Your task to perform on an android device: Open calendar and show me the second week of next month Image 0: 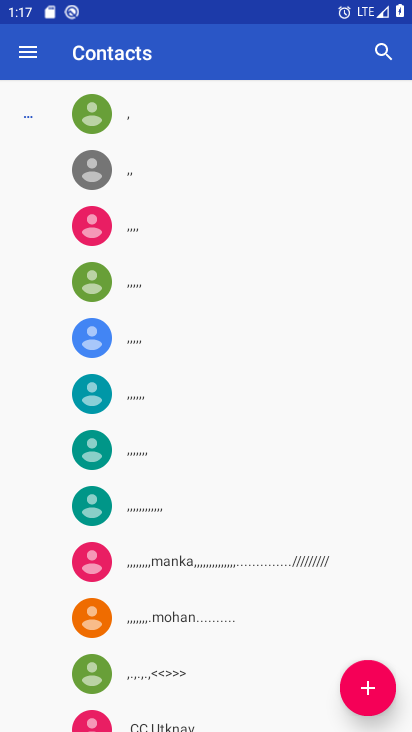
Step 0: press home button
Your task to perform on an android device: Open calendar and show me the second week of next month Image 1: 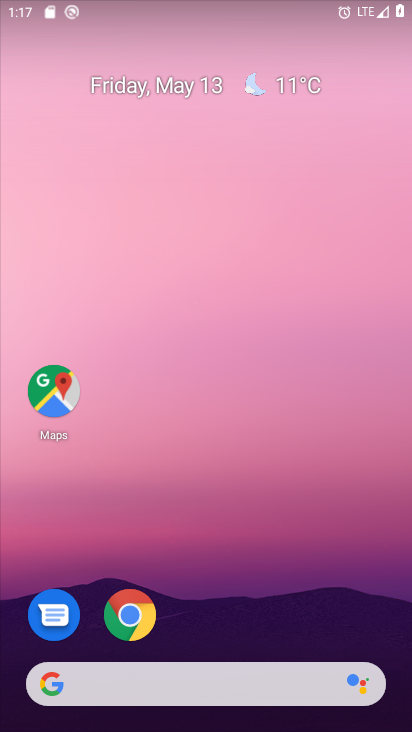
Step 1: drag from (219, 570) to (283, 60)
Your task to perform on an android device: Open calendar and show me the second week of next month Image 2: 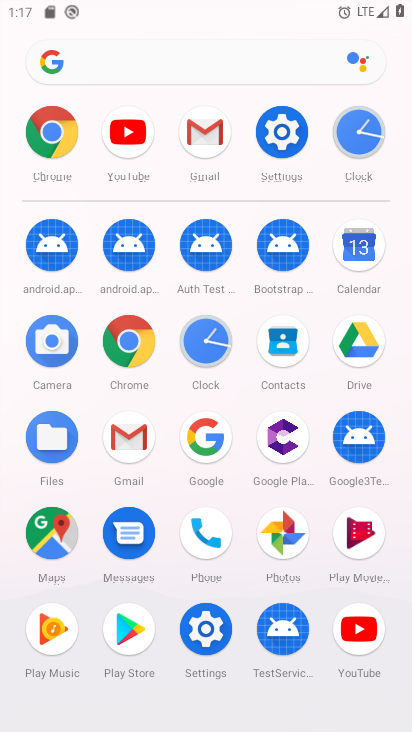
Step 2: click (356, 242)
Your task to perform on an android device: Open calendar and show me the second week of next month Image 3: 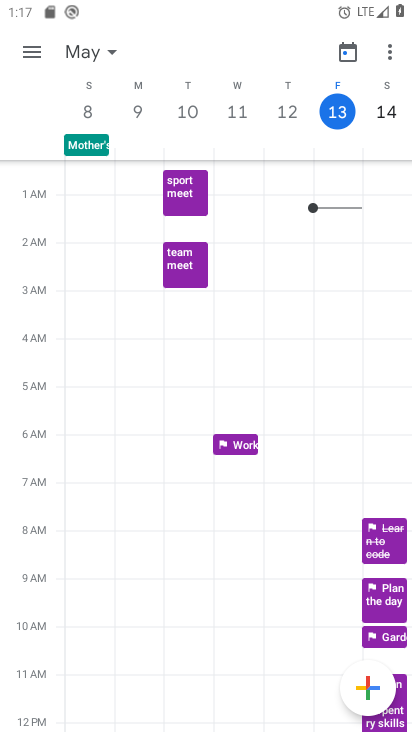
Step 3: click (30, 46)
Your task to perform on an android device: Open calendar and show me the second week of next month Image 4: 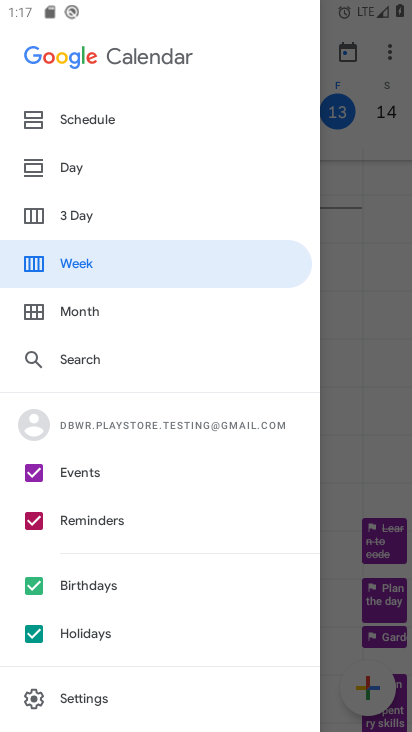
Step 4: click (84, 304)
Your task to perform on an android device: Open calendar and show me the second week of next month Image 5: 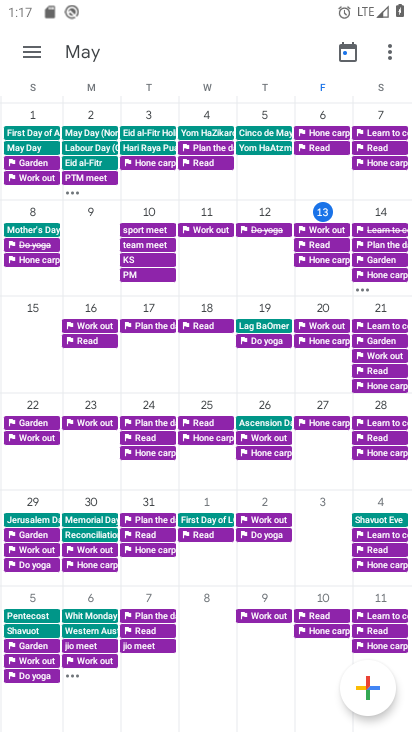
Step 5: drag from (367, 298) to (9, 342)
Your task to perform on an android device: Open calendar and show me the second week of next month Image 6: 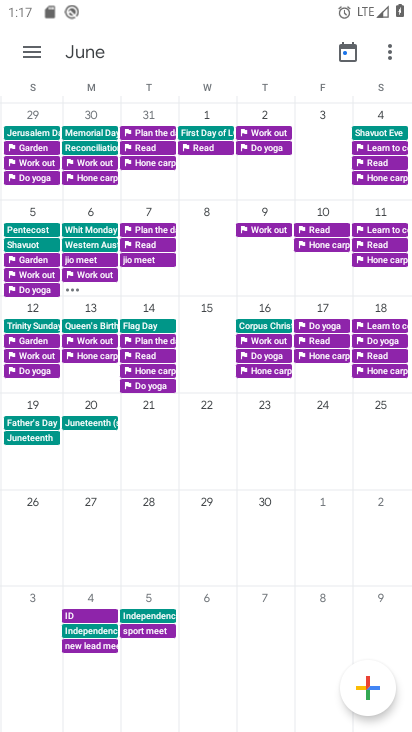
Step 6: click (43, 302)
Your task to perform on an android device: Open calendar and show me the second week of next month Image 7: 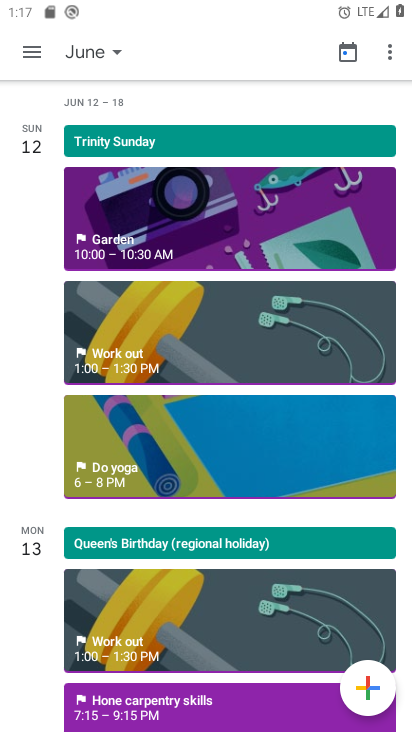
Step 7: click (40, 48)
Your task to perform on an android device: Open calendar and show me the second week of next month Image 8: 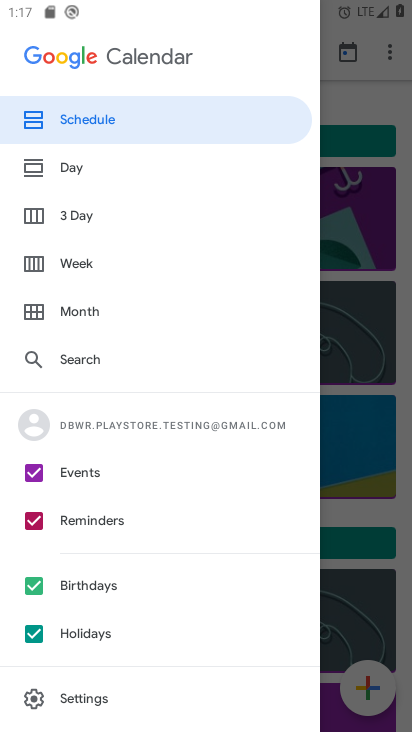
Step 8: click (47, 253)
Your task to perform on an android device: Open calendar and show me the second week of next month Image 9: 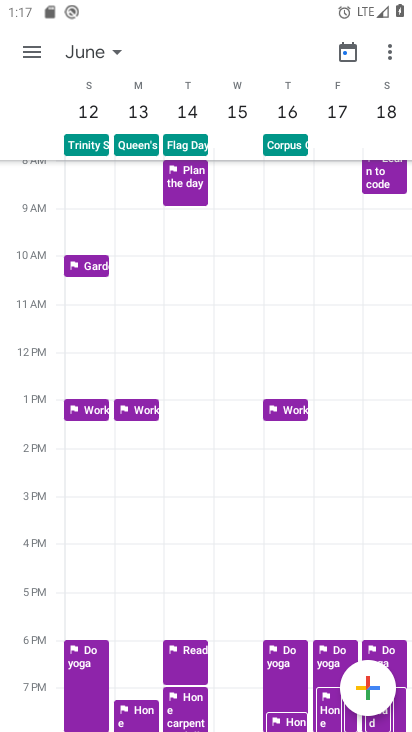
Step 9: task complete